Your task to perform on an android device: Go to Google Image 0: 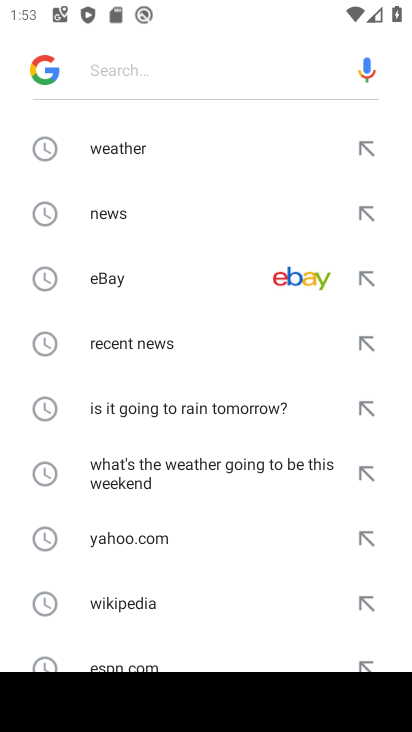
Step 0: press home button
Your task to perform on an android device: Go to Google Image 1: 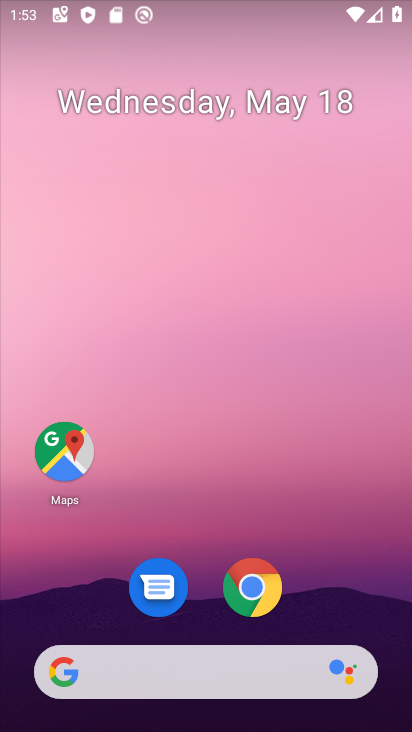
Step 1: drag from (301, 606) to (277, 14)
Your task to perform on an android device: Go to Google Image 2: 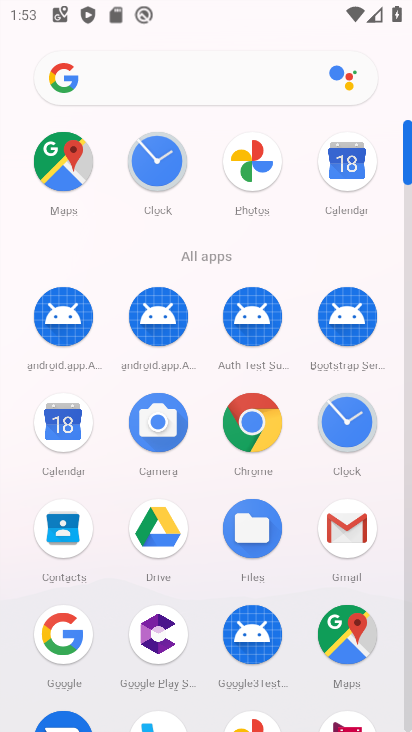
Step 2: click (54, 620)
Your task to perform on an android device: Go to Google Image 3: 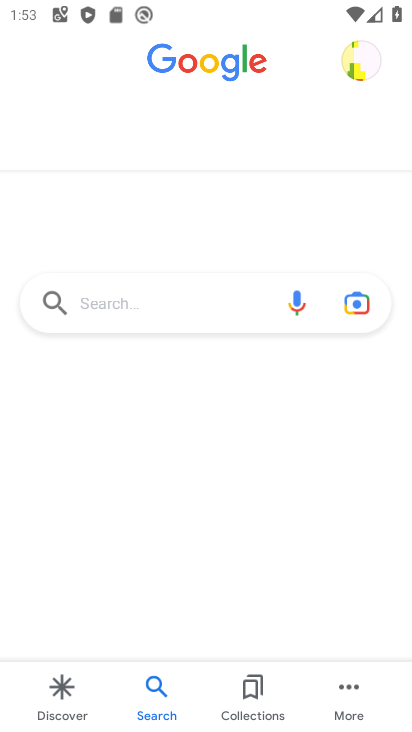
Step 3: task complete